Your task to perform on an android device: Go to calendar. Show me events next week Image 0: 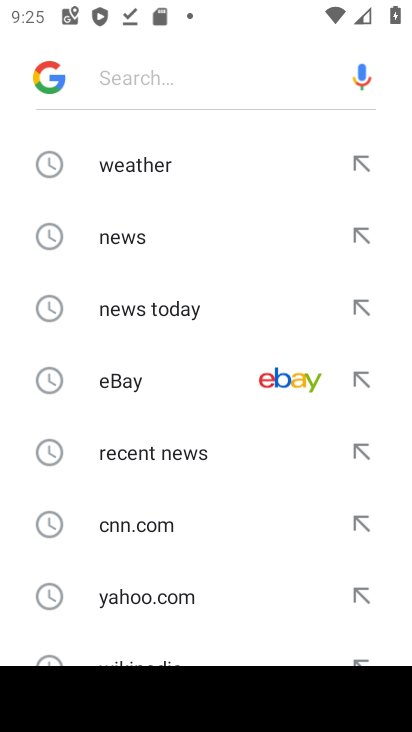
Step 0: press back button
Your task to perform on an android device: Go to calendar. Show me events next week Image 1: 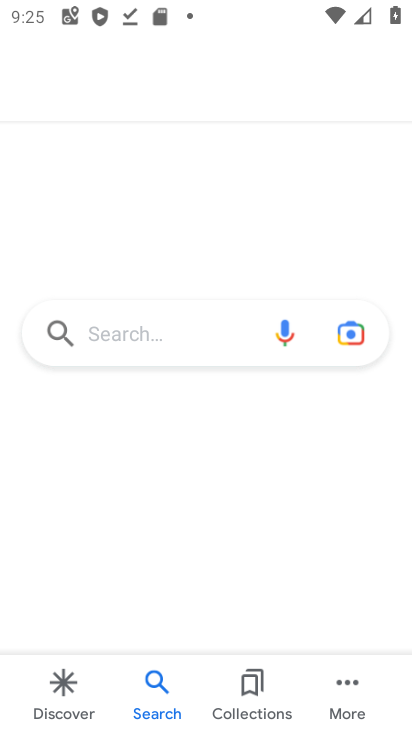
Step 1: press home button
Your task to perform on an android device: Go to calendar. Show me events next week Image 2: 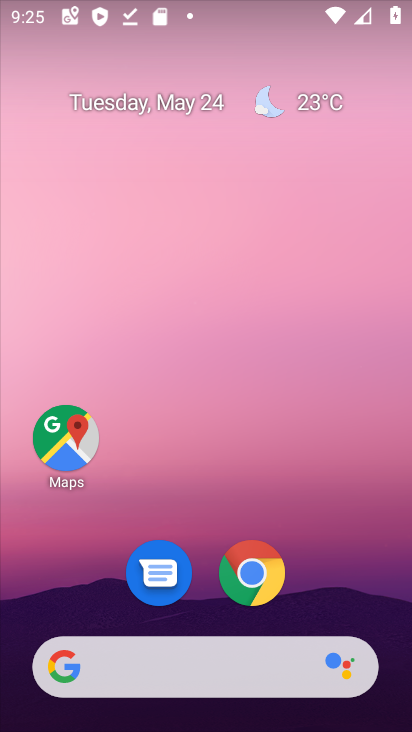
Step 2: drag from (292, 603) to (162, 24)
Your task to perform on an android device: Go to calendar. Show me events next week Image 3: 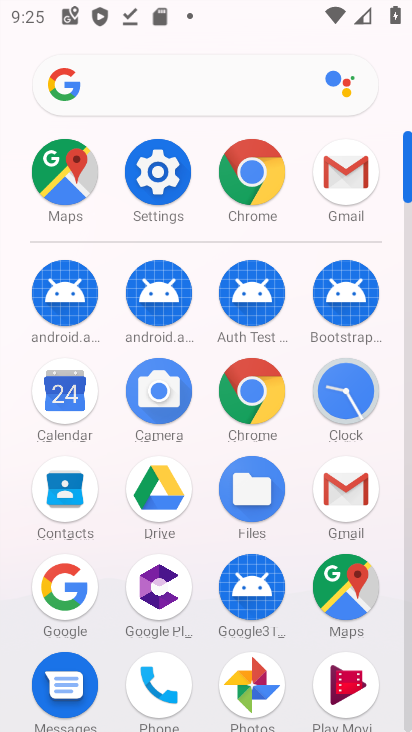
Step 3: click (70, 405)
Your task to perform on an android device: Go to calendar. Show me events next week Image 4: 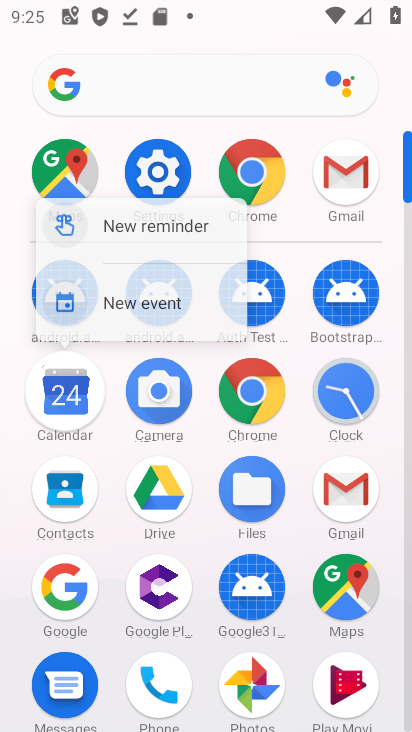
Step 4: click (68, 392)
Your task to perform on an android device: Go to calendar. Show me events next week Image 5: 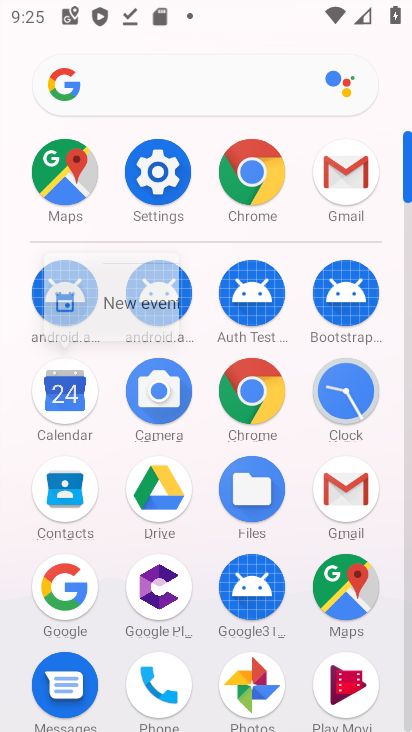
Step 5: click (68, 391)
Your task to perform on an android device: Go to calendar. Show me events next week Image 6: 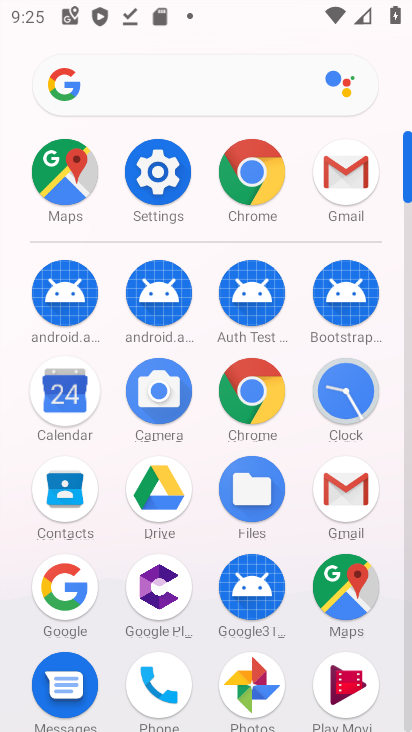
Step 6: click (68, 390)
Your task to perform on an android device: Go to calendar. Show me events next week Image 7: 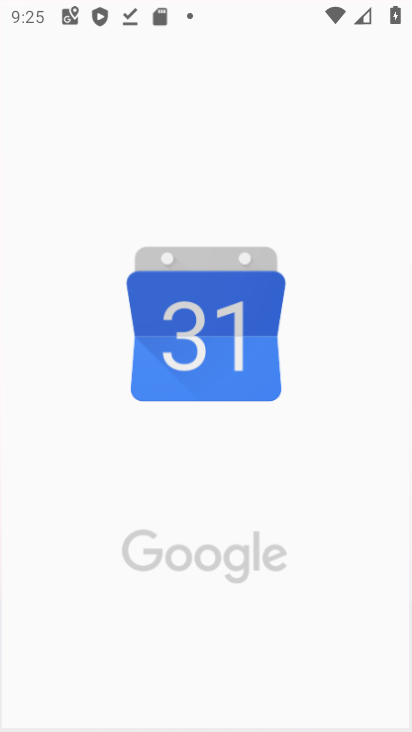
Step 7: click (68, 390)
Your task to perform on an android device: Go to calendar. Show me events next week Image 8: 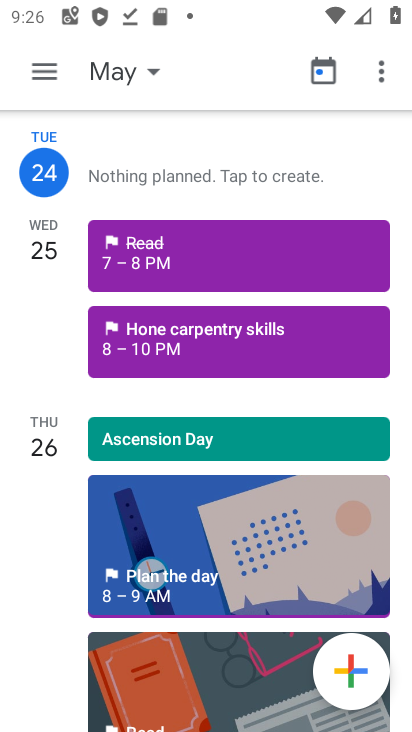
Step 8: drag from (171, 537) to (136, 282)
Your task to perform on an android device: Go to calendar. Show me events next week Image 9: 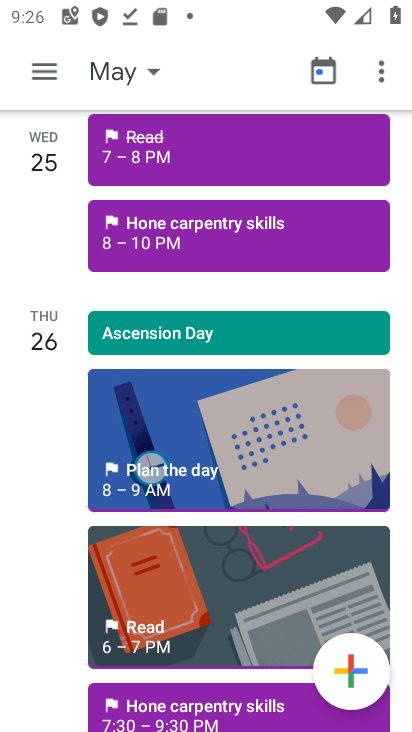
Step 9: drag from (161, 491) to (203, 171)
Your task to perform on an android device: Go to calendar. Show me events next week Image 10: 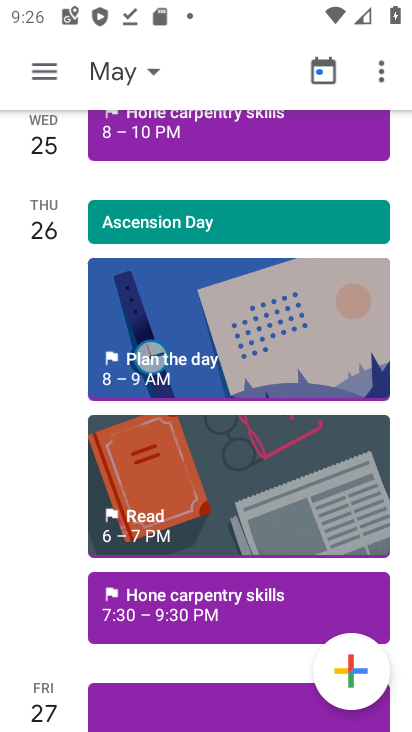
Step 10: drag from (205, 528) to (233, 234)
Your task to perform on an android device: Go to calendar. Show me events next week Image 11: 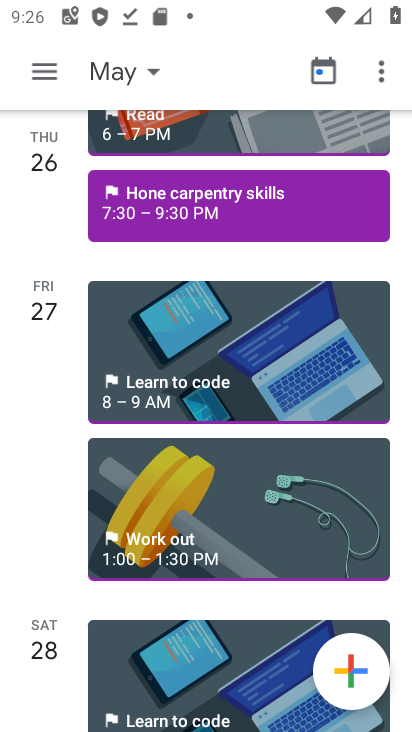
Step 11: drag from (222, 517) to (214, 125)
Your task to perform on an android device: Go to calendar. Show me events next week Image 12: 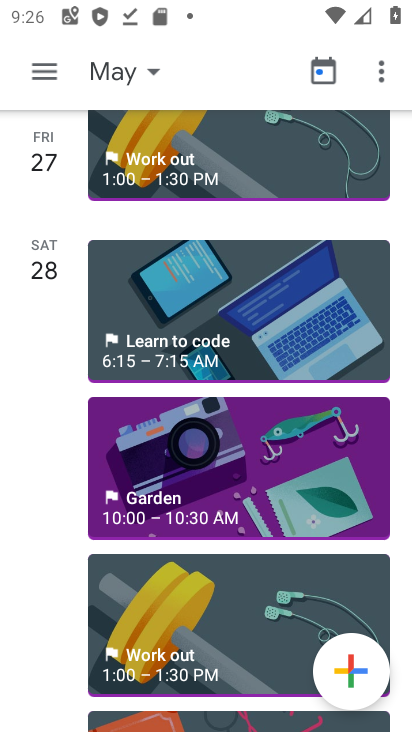
Step 12: click (145, 300)
Your task to perform on an android device: Go to calendar. Show me events next week Image 13: 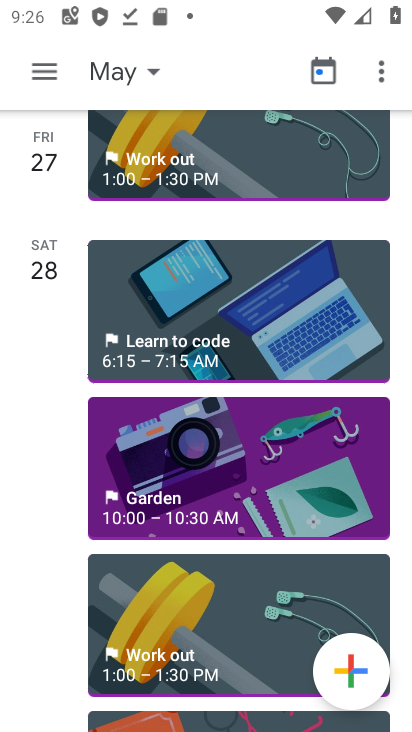
Step 13: click (145, 300)
Your task to perform on an android device: Go to calendar. Show me events next week Image 14: 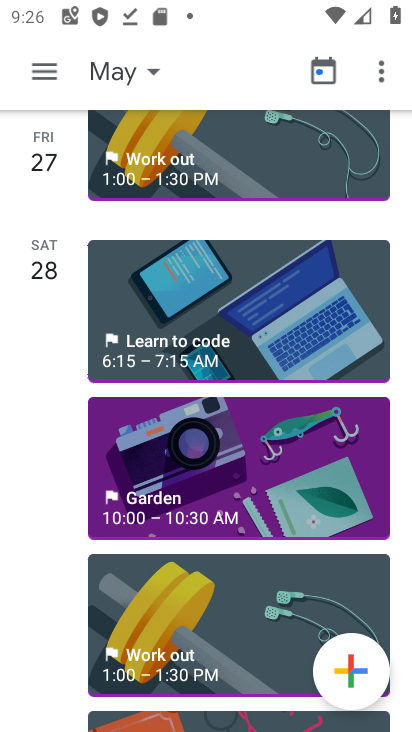
Step 14: click (151, 300)
Your task to perform on an android device: Go to calendar. Show me events next week Image 15: 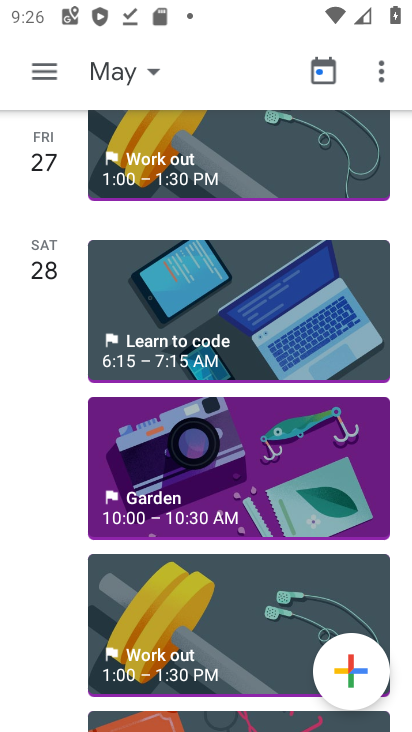
Step 15: click (156, 302)
Your task to perform on an android device: Go to calendar. Show me events next week Image 16: 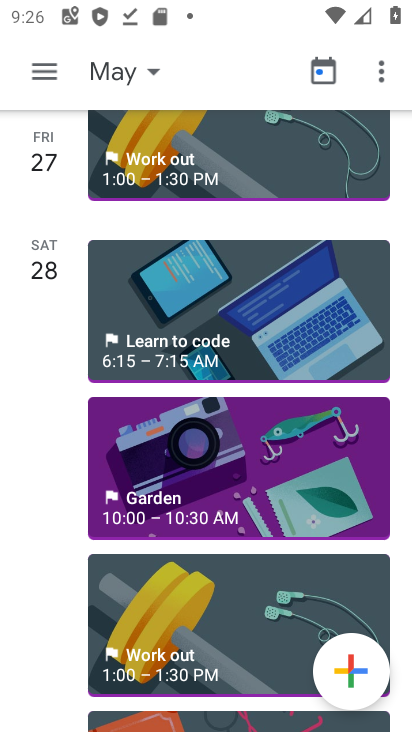
Step 16: click (184, 454)
Your task to perform on an android device: Go to calendar. Show me events next week Image 17: 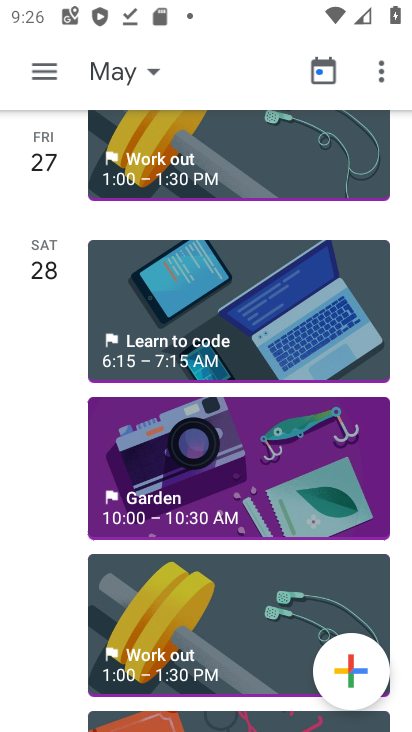
Step 17: click (187, 454)
Your task to perform on an android device: Go to calendar. Show me events next week Image 18: 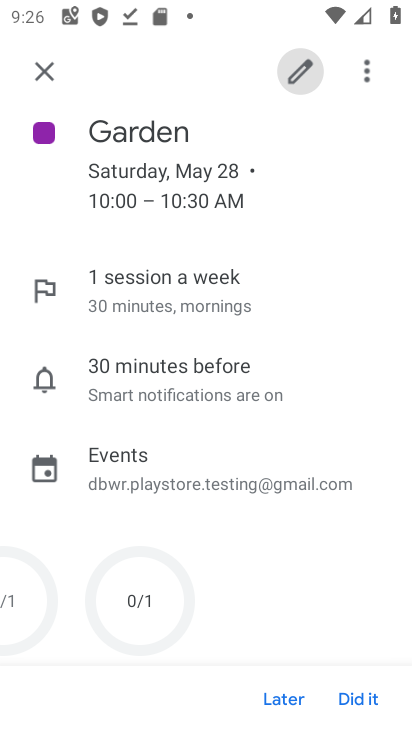
Step 18: click (191, 450)
Your task to perform on an android device: Go to calendar. Show me events next week Image 19: 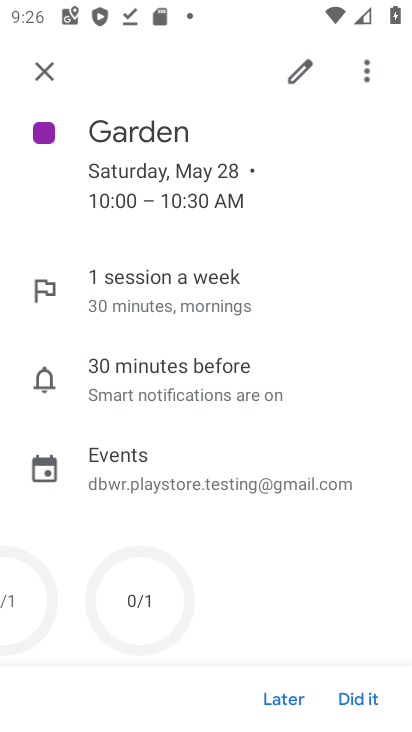
Step 19: task complete